Your task to perform on an android device: Go to Reddit.com Image 0: 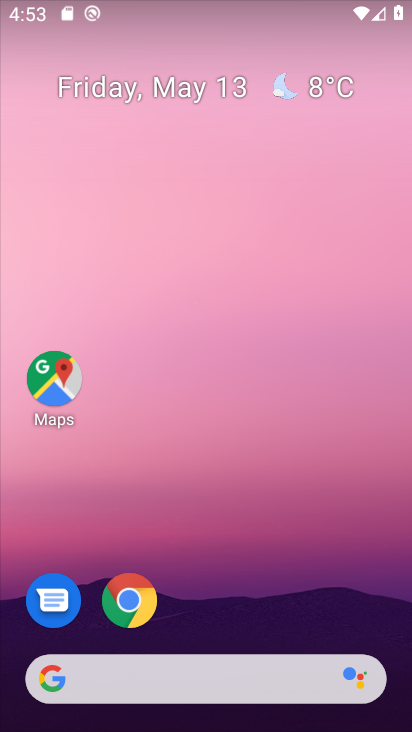
Step 0: click (153, 601)
Your task to perform on an android device: Go to Reddit.com Image 1: 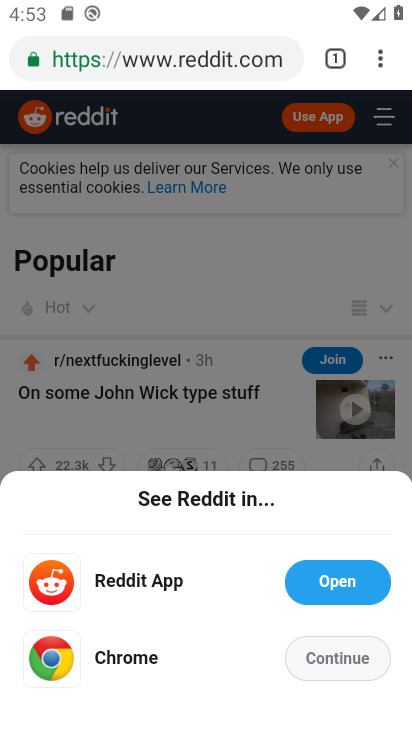
Step 1: click (94, 659)
Your task to perform on an android device: Go to Reddit.com Image 2: 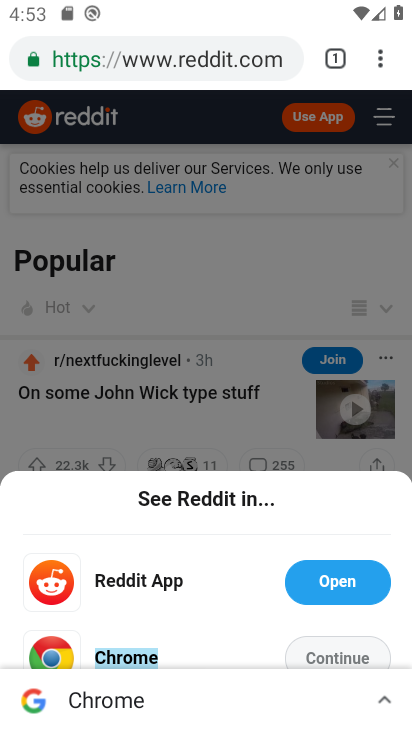
Step 2: click (318, 650)
Your task to perform on an android device: Go to Reddit.com Image 3: 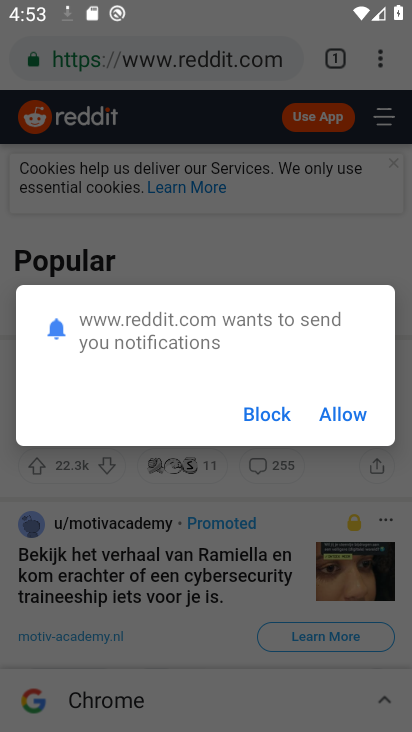
Step 3: click (336, 422)
Your task to perform on an android device: Go to Reddit.com Image 4: 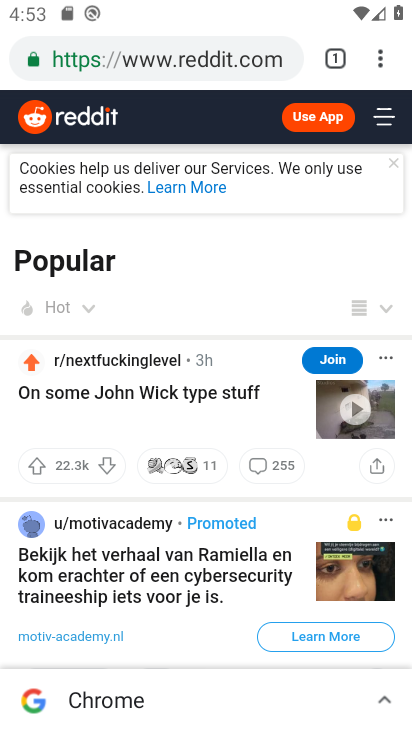
Step 4: task complete